Your task to perform on an android device: empty trash in google photos Image 0: 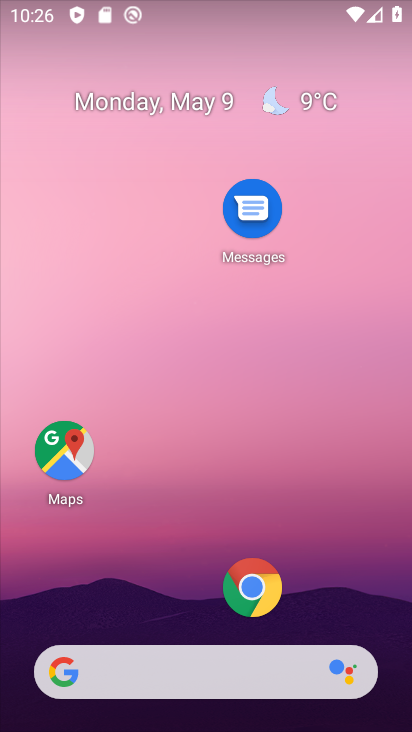
Step 0: drag from (206, 620) to (231, 236)
Your task to perform on an android device: empty trash in google photos Image 1: 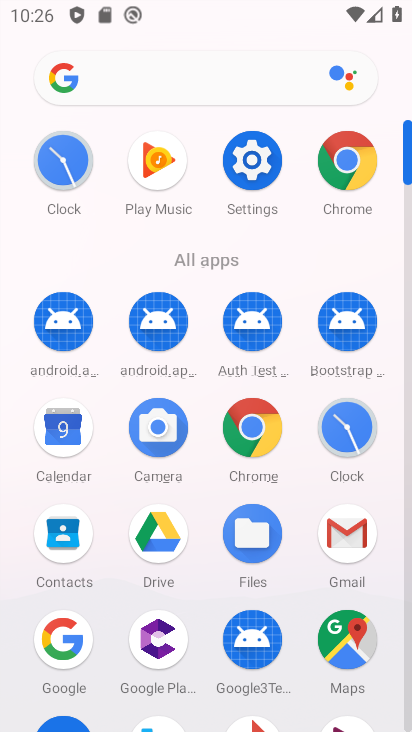
Step 1: drag from (223, 492) to (200, 192)
Your task to perform on an android device: empty trash in google photos Image 2: 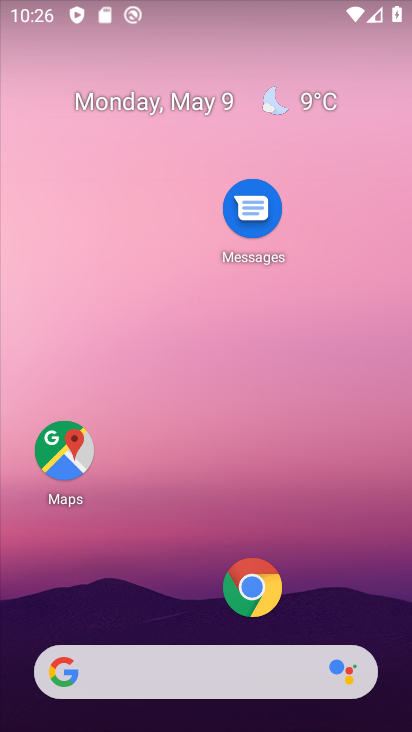
Step 2: drag from (206, 691) to (254, 204)
Your task to perform on an android device: empty trash in google photos Image 3: 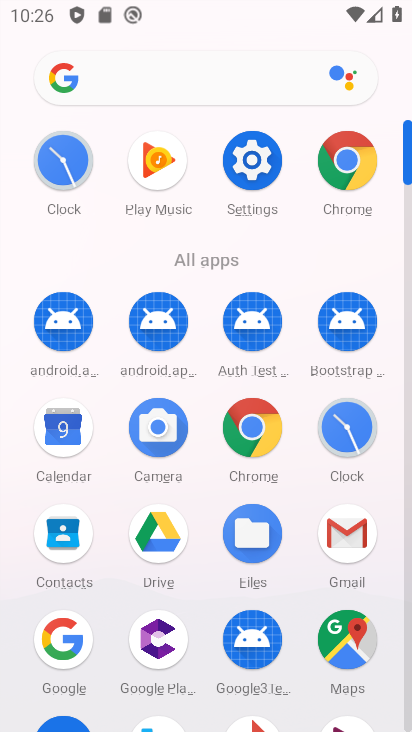
Step 3: drag from (206, 653) to (236, 383)
Your task to perform on an android device: empty trash in google photos Image 4: 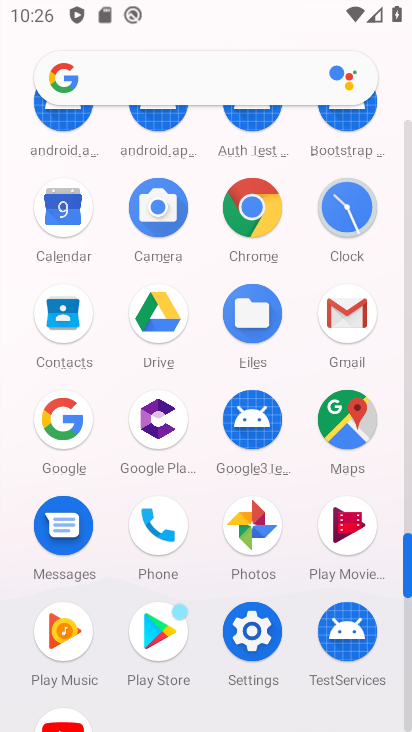
Step 4: drag from (215, 670) to (243, 419)
Your task to perform on an android device: empty trash in google photos Image 5: 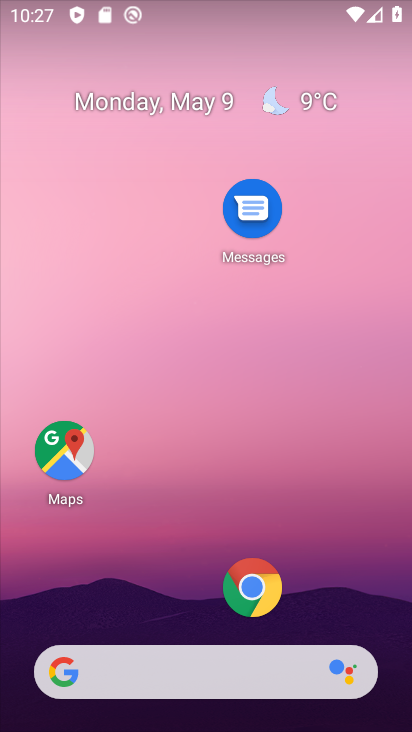
Step 5: drag from (173, 593) to (230, 241)
Your task to perform on an android device: empty trash in google photos Image 6: 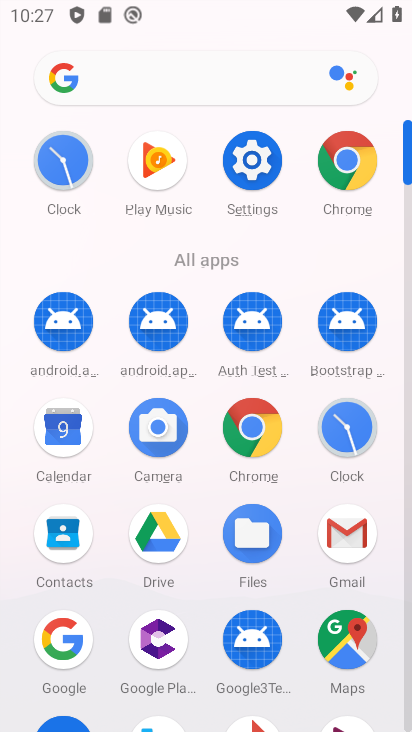
Step 6: drag from (220, 656) to (220, 296)
Your task to perform on an android device: empty trash in google photos Image 7: 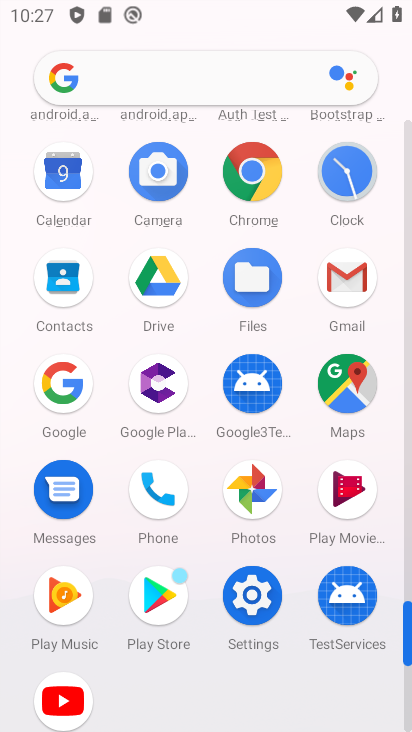
Step 7: click (257, 481)
Your task to perform on an android device: empty trash in google photos Image 8: 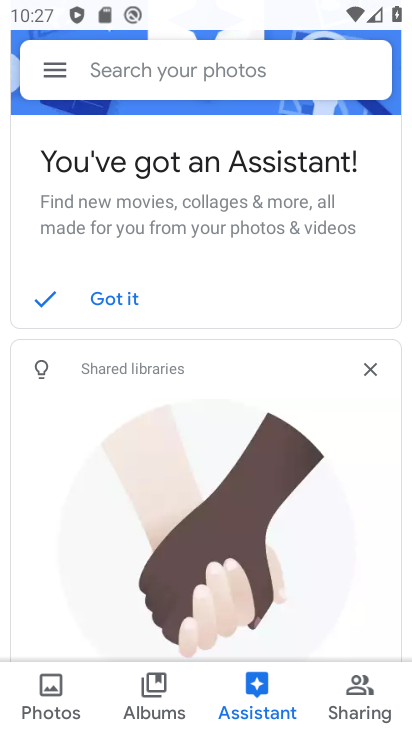
Step 8: click (57, 76)
Your task to perform on an android device: empty trash in google photos Image 9: 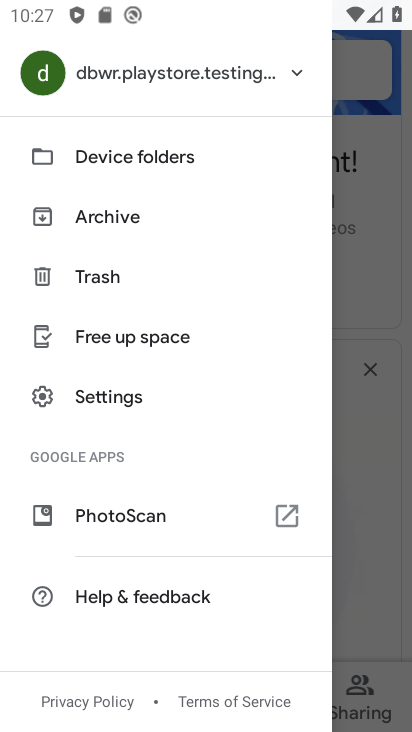
Step 9: click (102, 270)
Your task to perform on an android device: empty trash in google photos Image 10: 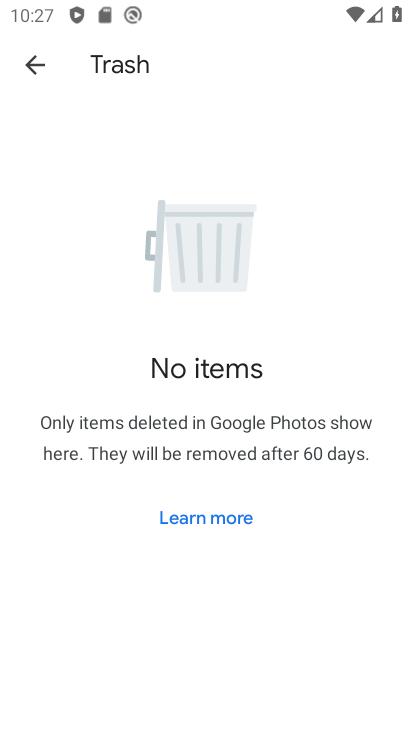
Step 10: task complete